Your task to perform on an android device: Search for the best rated headphones on amazon.com Image 0: 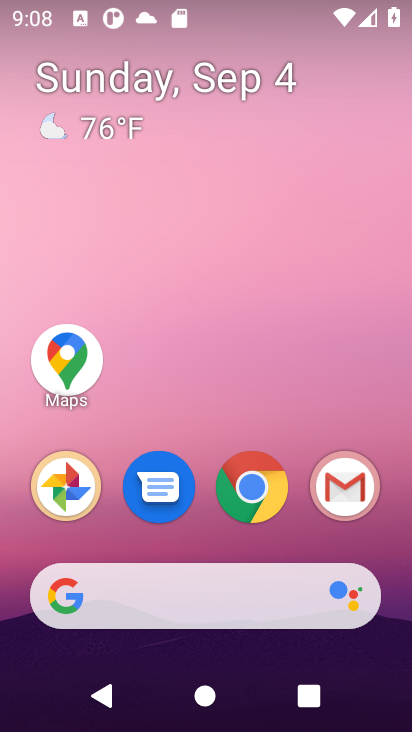
Step 0: click (240, 597)
Your task to perform on an android device: Search for the best rated headphones on amazon.com Image 1: 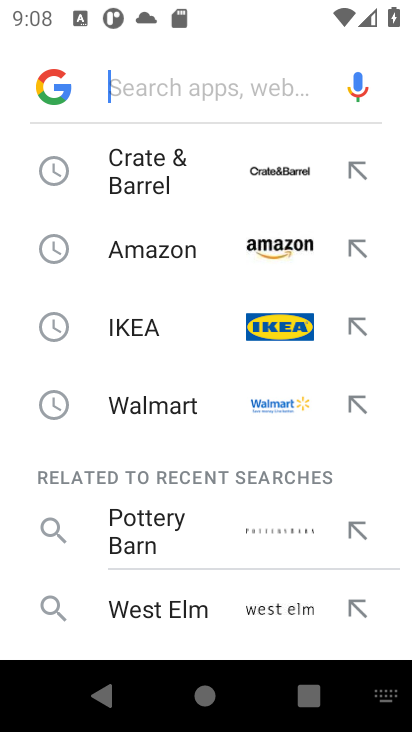
Step 1: click (252, 240)
Your task to perform on an android device: Search for the best rated headphones on amazon.com Image 2: 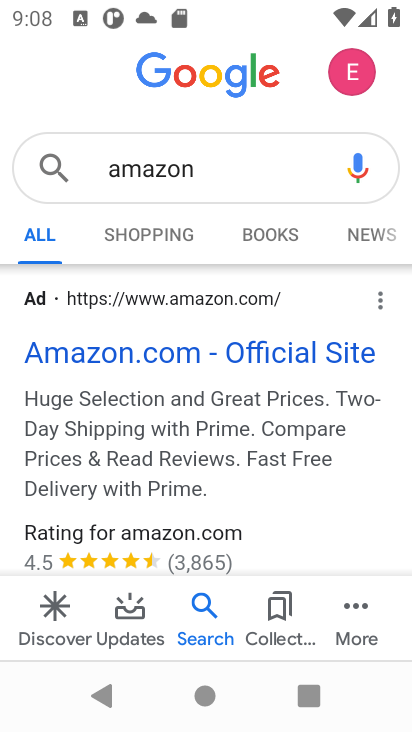
Step 2: click (259, 345)
Your task to perform on an android device: Search for the best rated headphones on amazon.com Image 3: 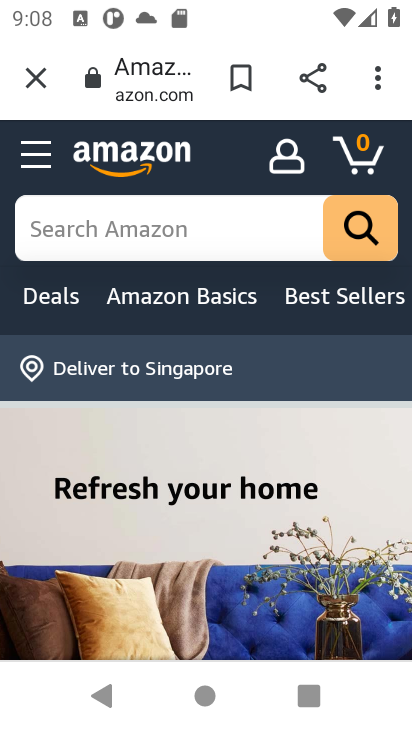
Step 3: click (164, 238)
Your task to perform on an android device: Search for the best rated headphones on amazon.com Image 4: 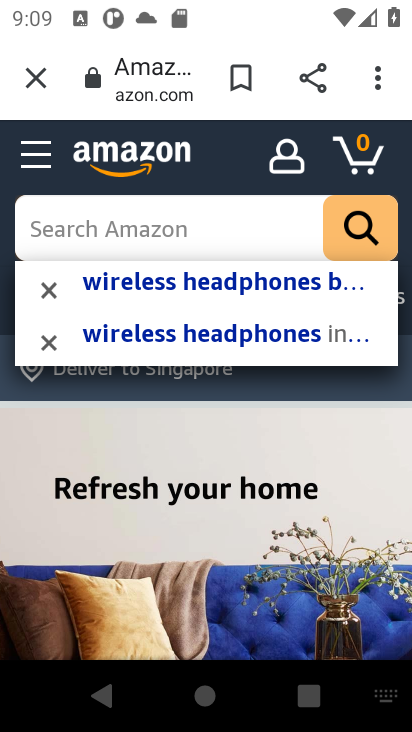
Step 4: type "headphones"
Your task to perform on an android device: Search for the best rated headphones on amazon.com Image 5: 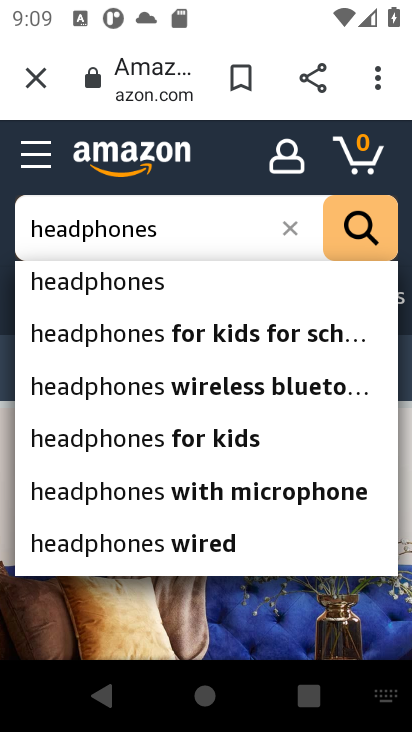
Step 5: click (215, 284)
Your task to perform on an android device: Search for the best rated headphones on amazon.com Image 6: 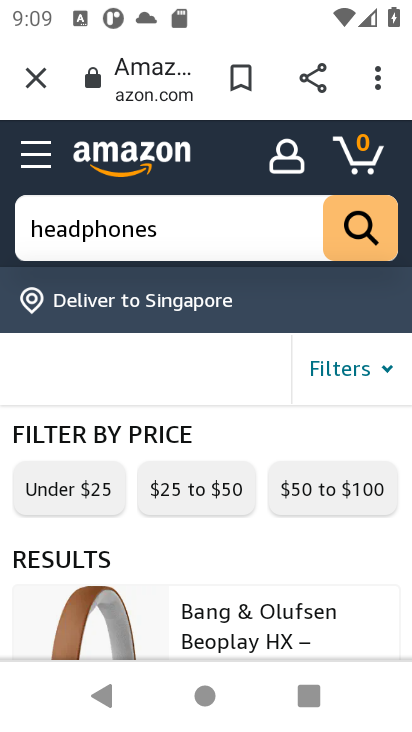
Step 6: click (371, 366)
Your task to perform on an android device: Search for the best rated headphones on amazon.com Image 7: 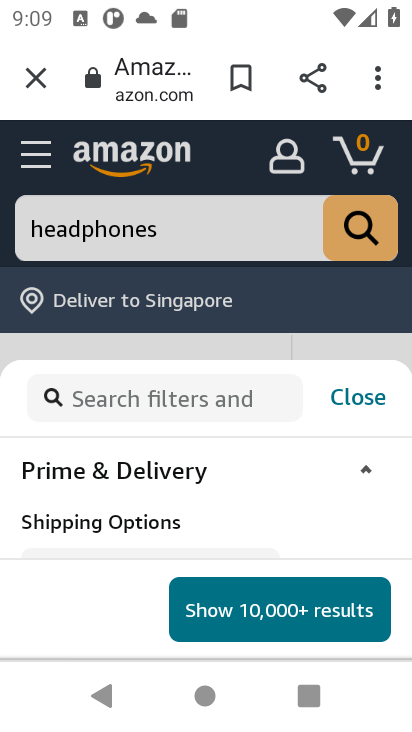
Step 7: click (179, 381)
Your task to perform on an android device: Search for the best rated headphones on amazon.com Image 8: 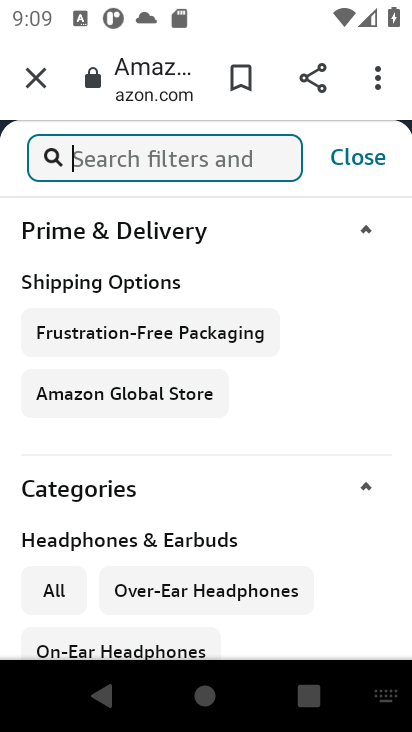
Step 8: type "best rated "
Your task to perform on an android device: Search for the best rated headphones on amazon.com Image 9: 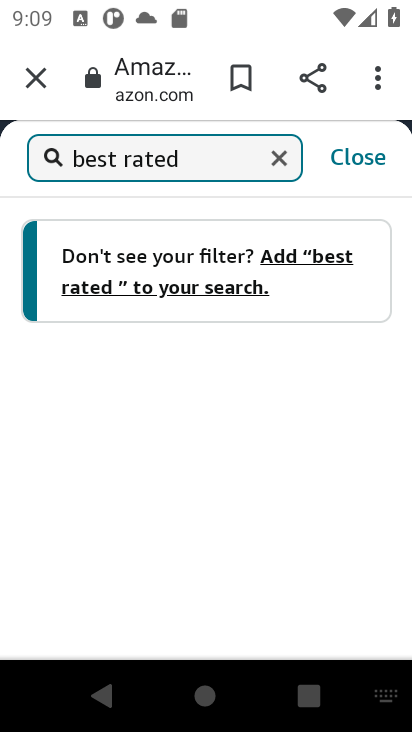
Step 9: click (342, 252)
Your task to perform on an android device: Search for the best rated headphones on amazon.com Image 10: 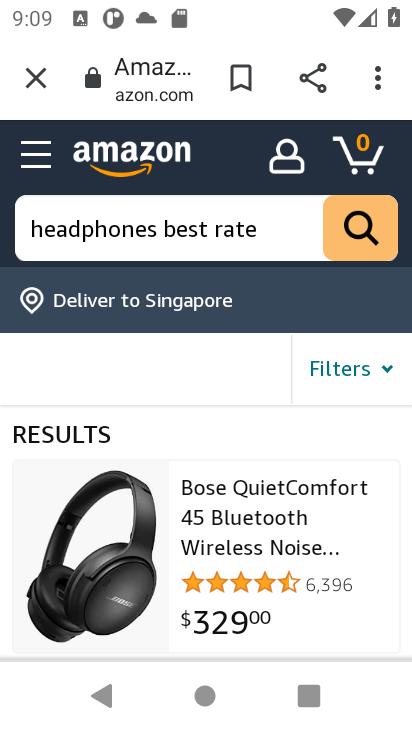
Step 10: task complete